Your task to perform on an android device: Open Chrome and go to settings Image 0: 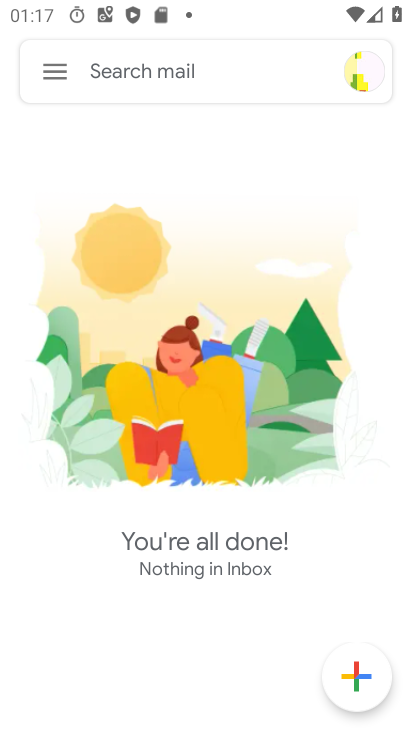
Step 0: press home button
Your task to perform on an android device: Open Chrome and go to settings Image 1: 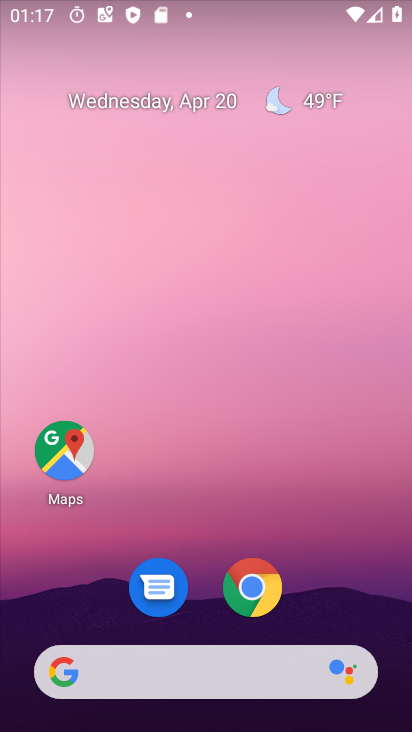
Step 1: click (245, 598)
Your task to perform on an android device: Open Chrome and go to settings Image 2: 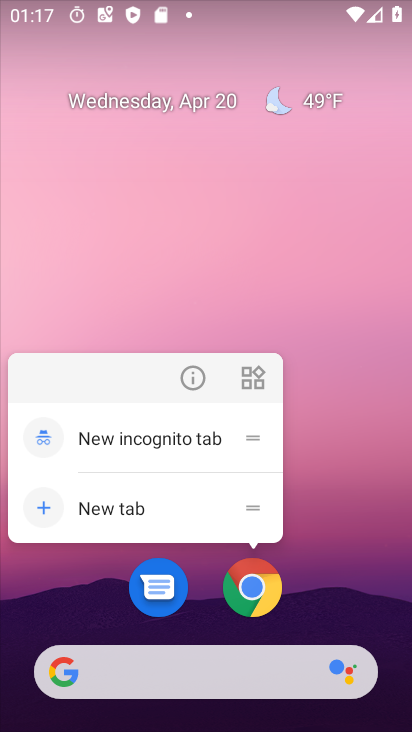
Step 2: click (259, 583)
Your task to perform on an android device: Open Chrome and go to settings Image 3: 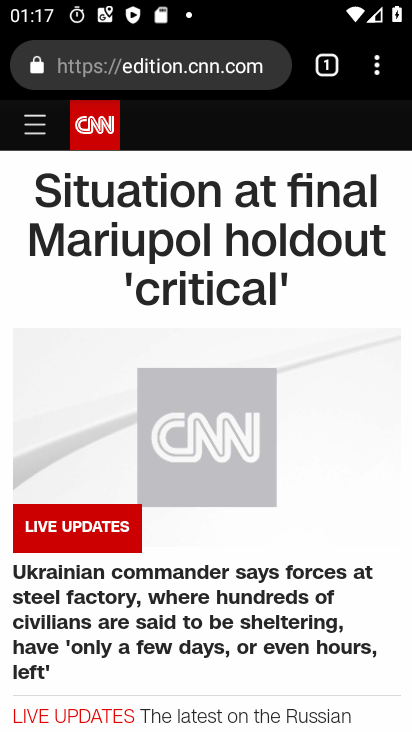
Step 3: click (378, 67)
Your task to perform on an android device: Open Chrome and go to settings Image 4: 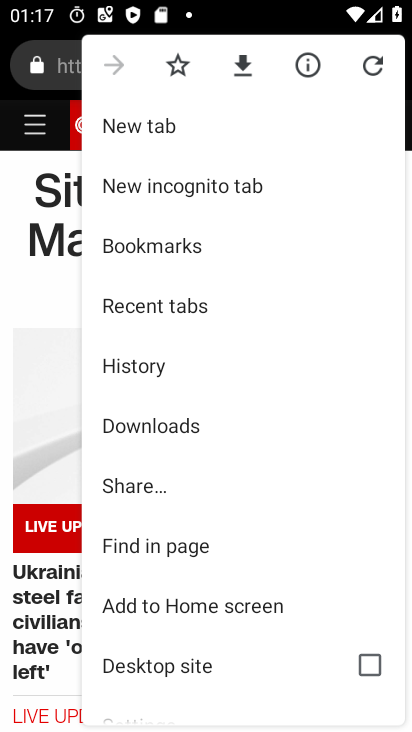
Step 4: drag from (255, 549) to (217, 161)
Your task to perform on an android device: Open Chrome and go to settings Image 5: 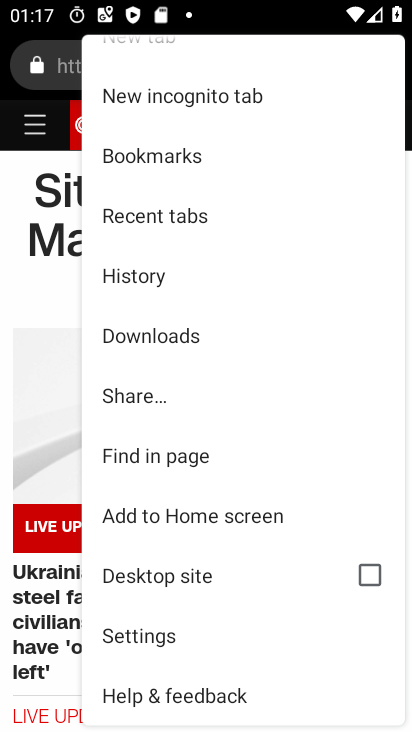
Step 5: click (137, 636)
Your task to perform on an android device: Open Chrome and go to settings Image 6: 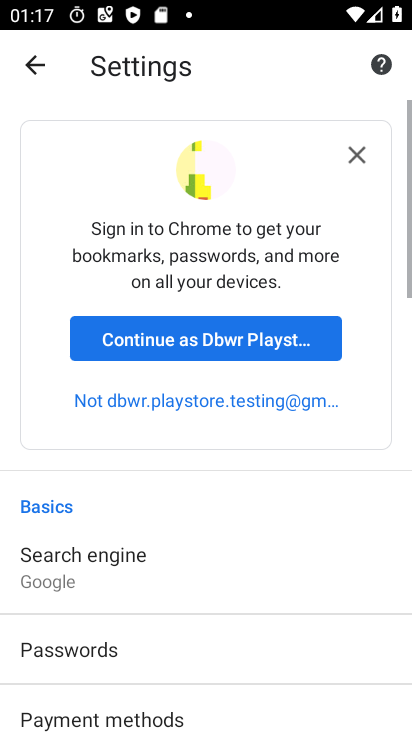
Step 6: task complete